Your task to perform on an android device: toggle javascript in the chrome app Image 0: 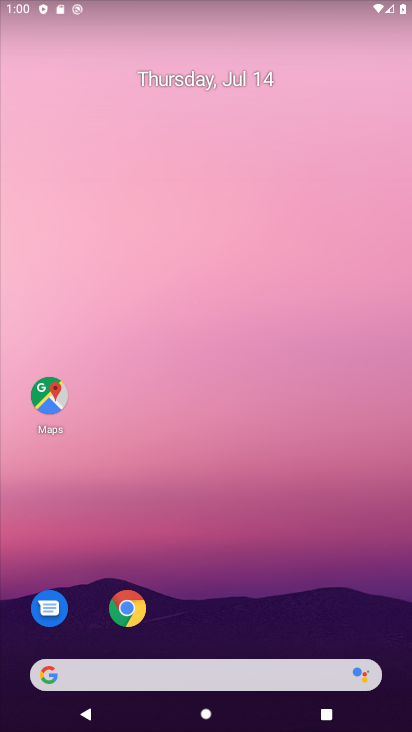
Step 0: click (120, 607)
Your task to perform on an android device: toggle javascript in the chrome app Image 1: 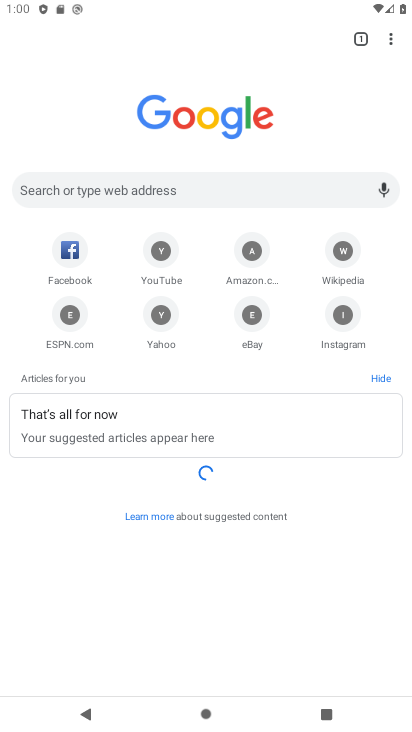
Step 1: click (385, 41)
Your task to perform on an android device: toggle javascript in the chrome app Image 2: 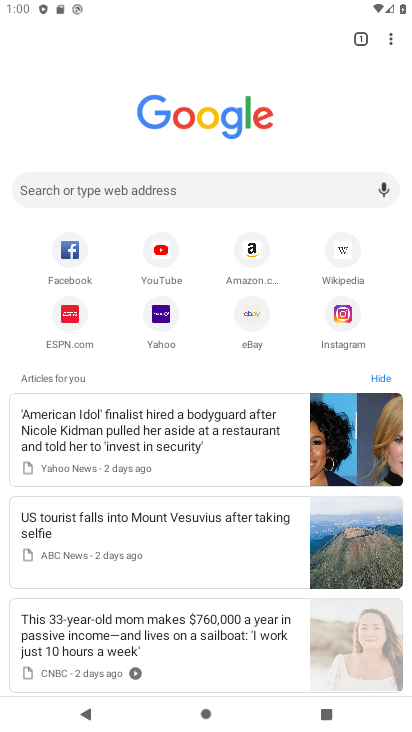
Step 2: click (392, 40)
Your task to perform on an android device: toggle javascript in the chrome app Image 3: 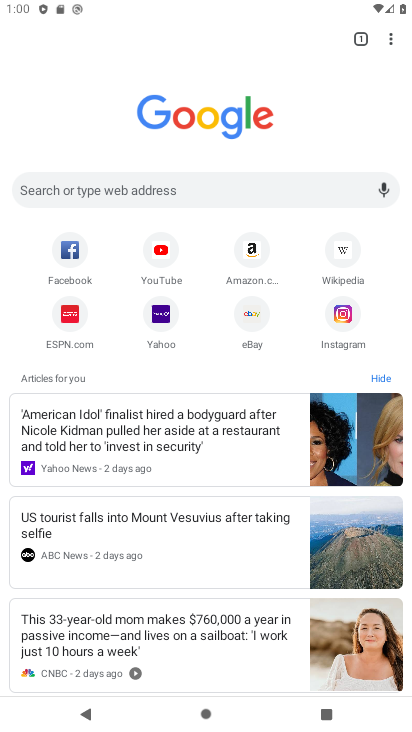
Step 3: click (392, 40)
Your task to perform on an android device: toggle javascript in the chrome app Image 4: 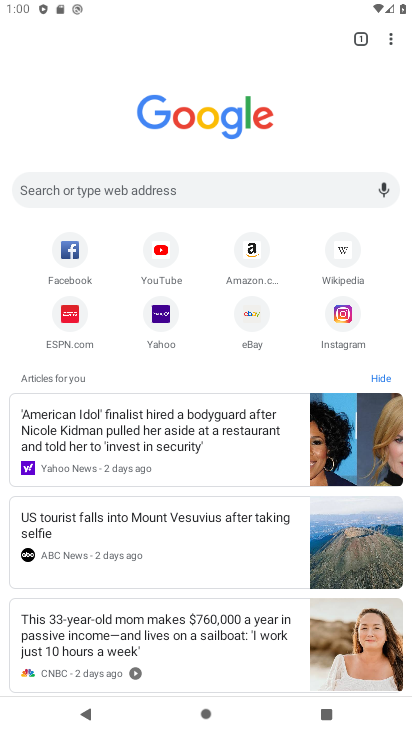
Step 4: click (387, 35)
Your task to perform on an android device: toggle javascript in the chrome app Image 5: 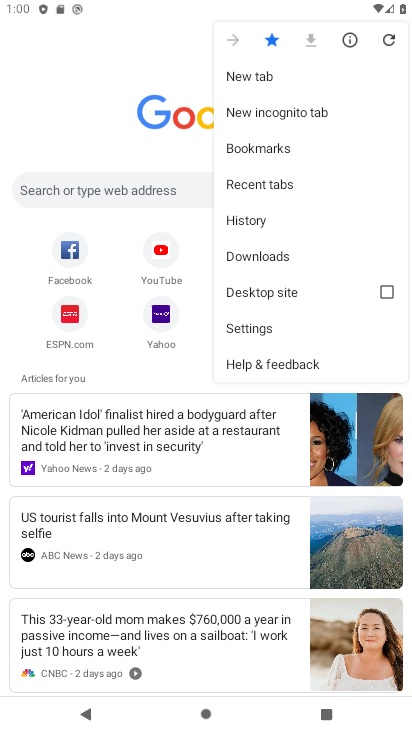
Step 5: click (234, 326)
Your task to perform on an android device: toggle javascript in the chrome app Image 6: 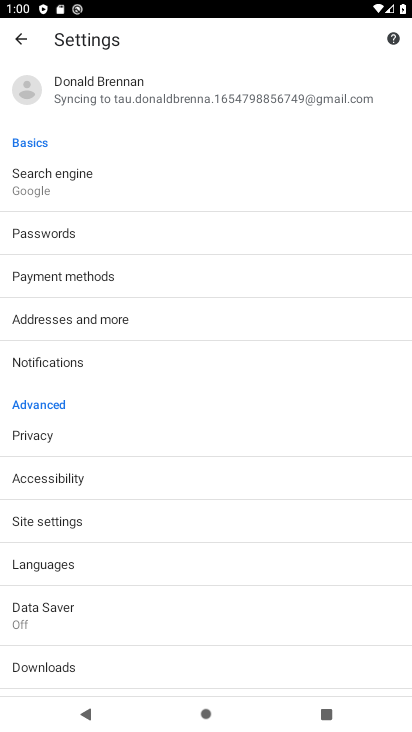
Step 6: drag from (75, 668) to (70, 400)
Your task to perform on an android device: toggle javascript in the chrome app Image 7: 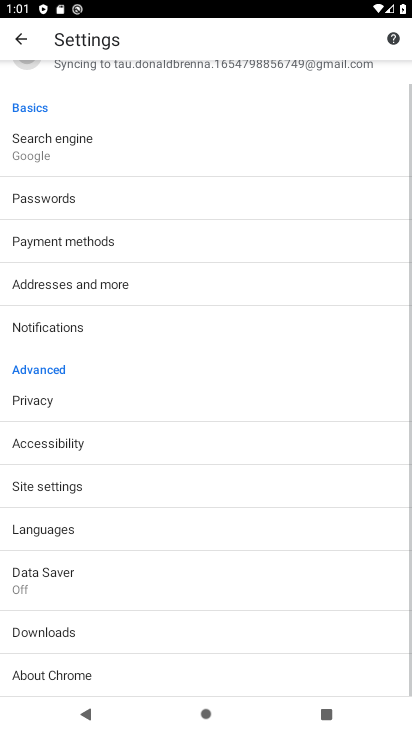
Step 7: click (65, 487)
Your task to perform on an android device: toggle javascript in the chrome app Image 8: 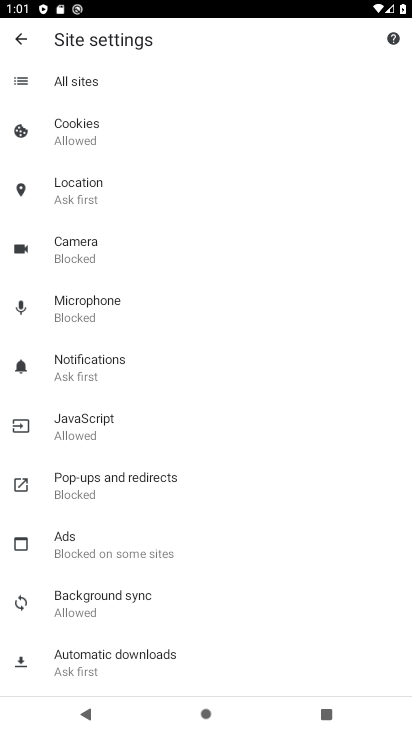
Step 8: click (103, 416)
Your task to perform on an android device: toggle javascript in the chrome app Image 9: 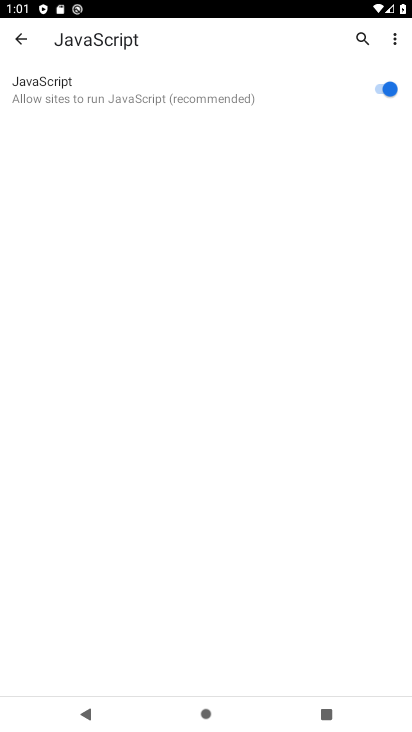
Step 9: click (381, 86)
Your task to perform on an android device: toggle javascript in the chrome app Image 10: 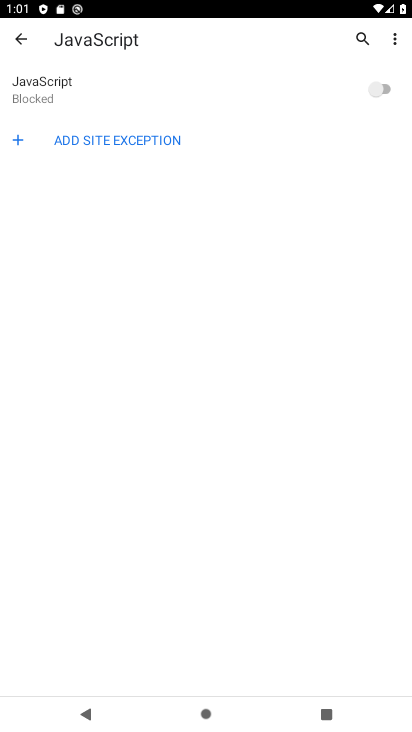
Step 10: task complete